Your task to perform on an android device: turn on improve location accuracy Image 0: 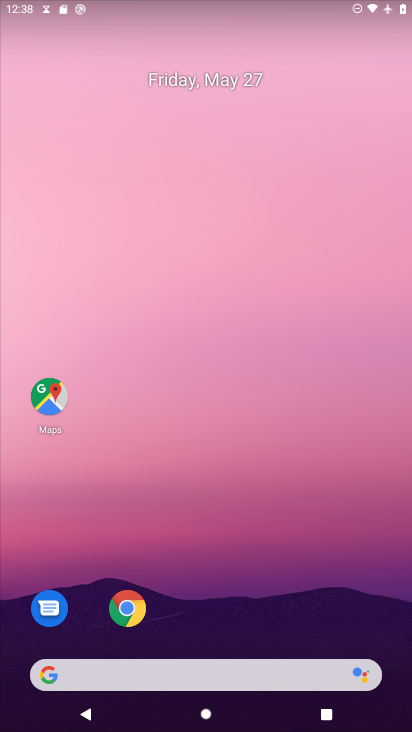
Step 0: press home button
Your task to perform on an android device: turn on improve location accuracy Image 1: 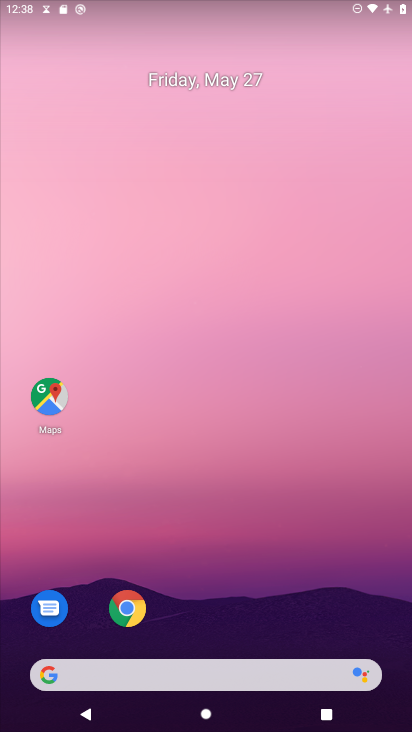
Step 1: drag from (173, 669) to (267, 212)
Your task to perform on an android device: turn on improve location accuracy Image 2: 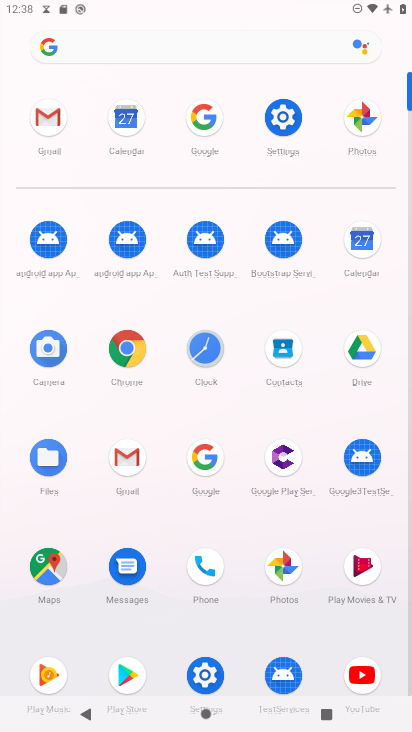
Step 2: click (280, 118)
Your task to perform on an android device: turn on improve location accuracy Image 3: 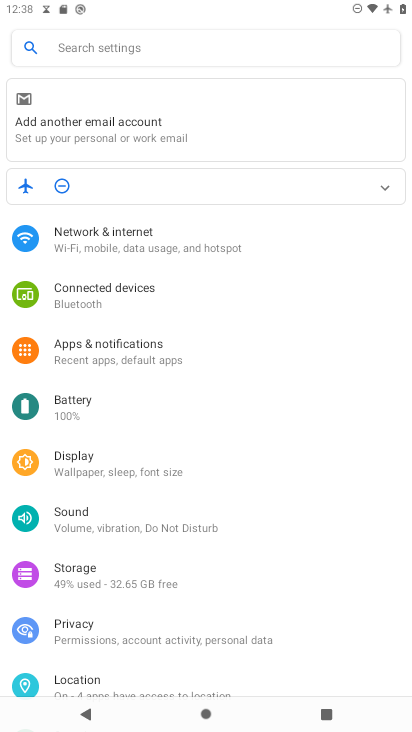
Step 3: drag from (215, 571) to (323, 249)
Your task to perform on an android device: turn on improve location accuracy Image 4: 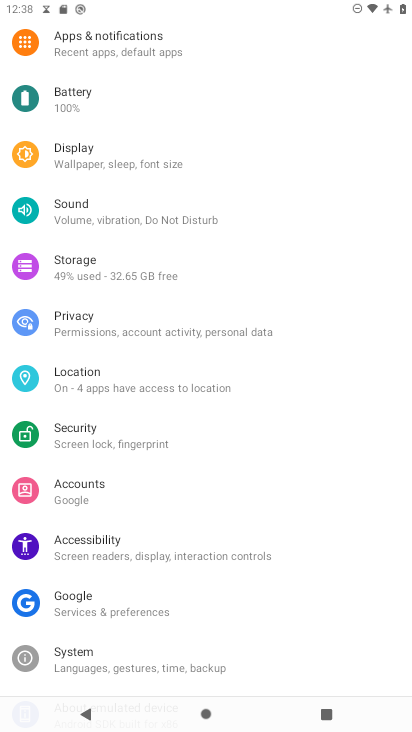
Step 4: click (118, 376)
Your task to perform on an android device: turn on improve location accuracy Image 5: 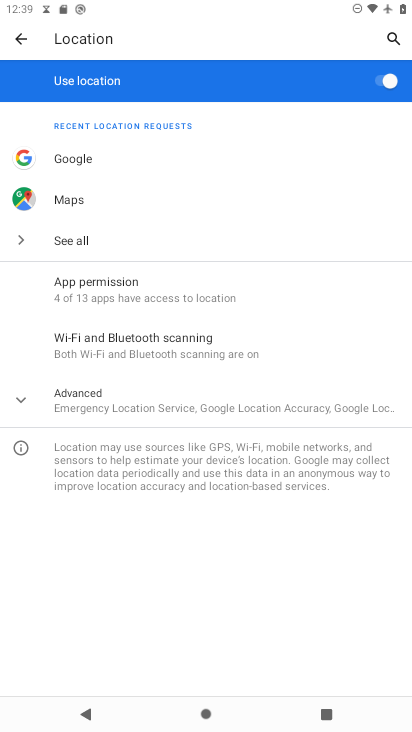
Step 5: click (118, 399)
Your task to perform on an android device: turn on improve location accuracy Image 6: 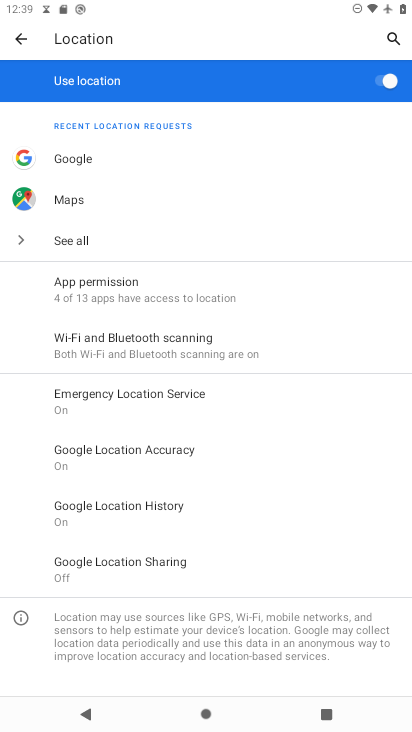
Step 6: click (144, 454)
Your task to perform on an android device: turn on improve location accuracy Image 7: 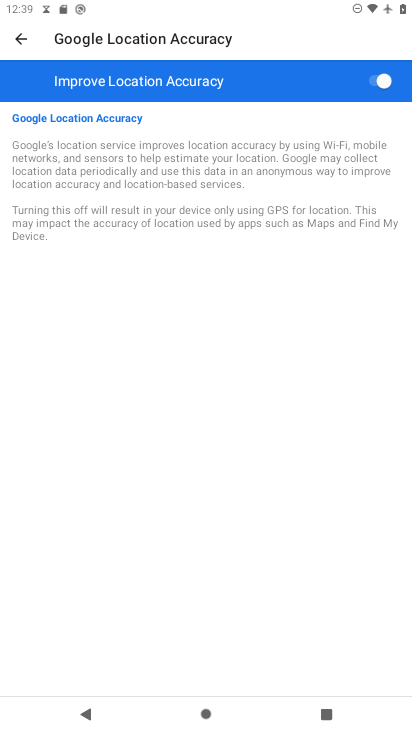
Step 7: task complete